Your task to perform on an android device: move a message to another label in the gmail app Image 0: 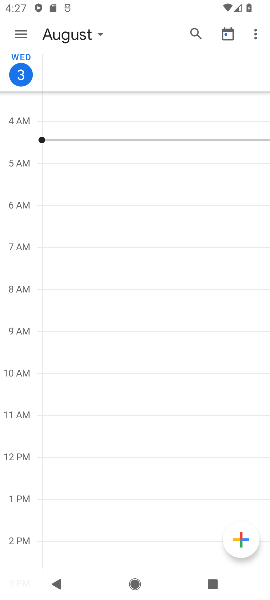
Step 0: press home button
Your task to perform on an android device: move a message to another label in the gmail app Image 1: 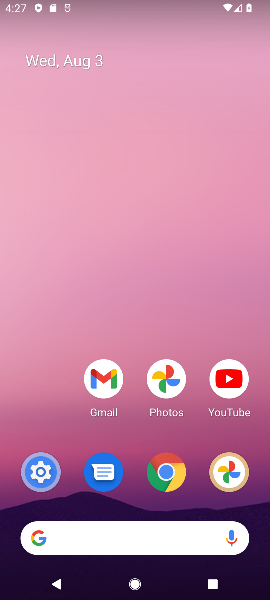
Step 1: drag from (64, 417) to (82, 67)
Your task to perform on an android device: move a message to another label in the gmail app Image 2: 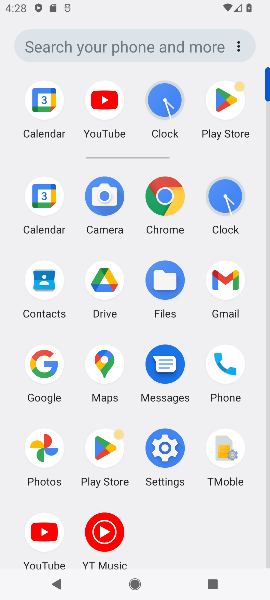
Step 2: click (228, 283)
Your task to perform on an android device: move a message to another label in the gmail app Image 3: 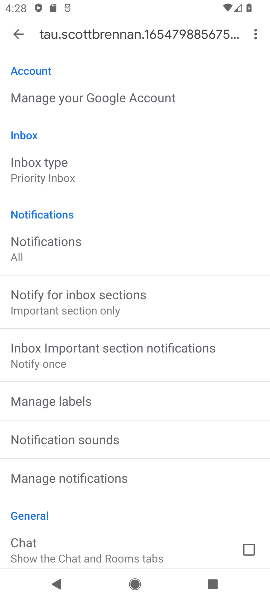
Step 3: click (19, 33)
Your task to perform on an android device: move a message to another label in the gmail app Image 4: 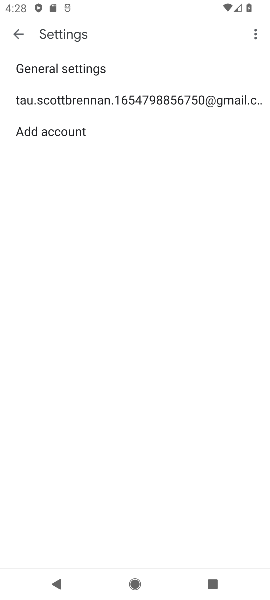
Step 4: click (17, 33)
Your task to perform on an android device: move a message to another label in the gmail app Image 5: 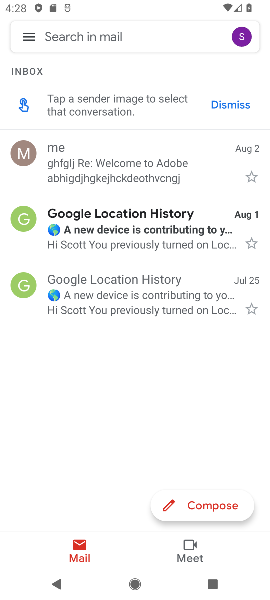
Step 5: click (114, 288)
Your task to perform on an android device: move a message to another label in the gmail app Image 6: 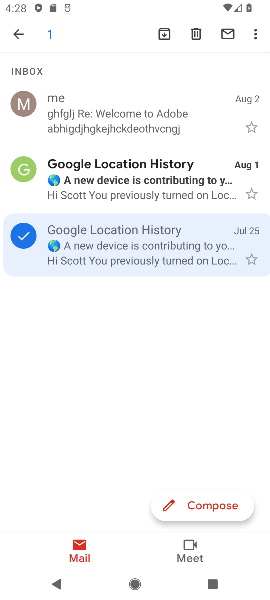
Step 6: click (255, 27)
Your task to perform on an android device: move a message to another label in the gmail app Image 7: 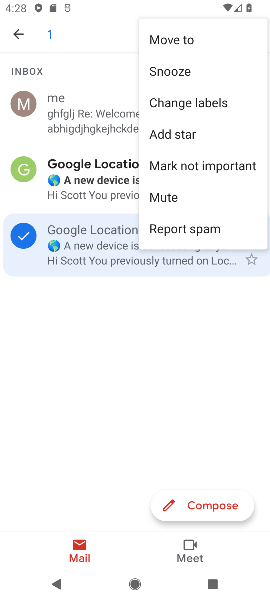
Step 7: click (188, 105)
Your task to perform on an android device: move a message to another label in the gmail app Image 8: 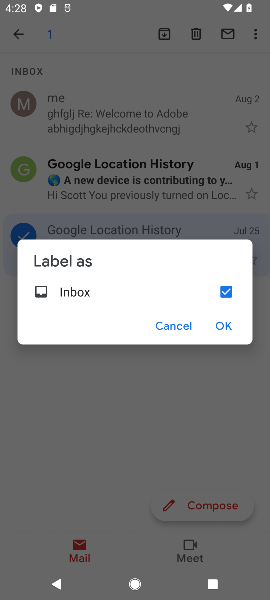
Step 8: click (229, 292)
Your task to perform on an android device: move a message to another label in the gmail app Image 9: 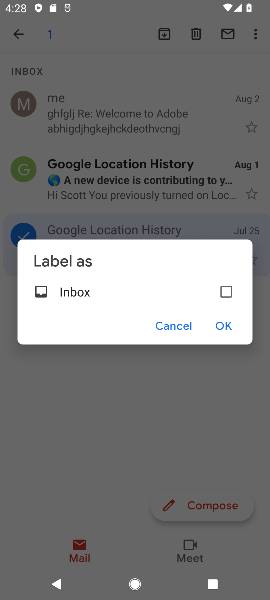
Step 9: click (230, 325)
Your task to perform on an android device: move a message to another label in the gmail app Image 10: 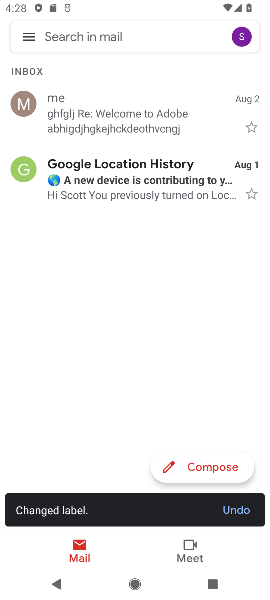
Step 10: task complete